Your task to perform on an android device: Open the phone app and click the voicemail tab. Image 0: 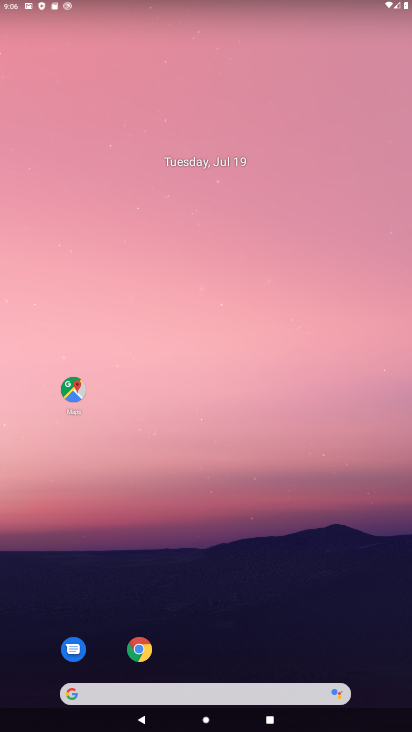
Step 0: drag from (381, 644) to (159, 80)
Your task to perform on an android device: Open the phone app and click the voicemail tab. Image 1: 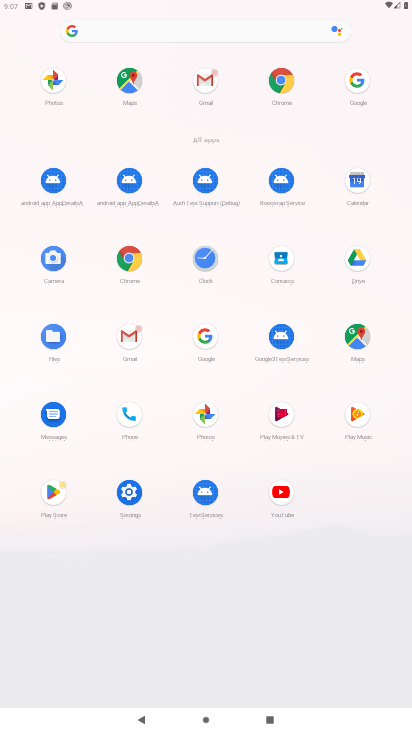
Step 1: click (125, 427)
Your task to perform on an android device: Open the phone app and click the voicemail tab. Image 2: 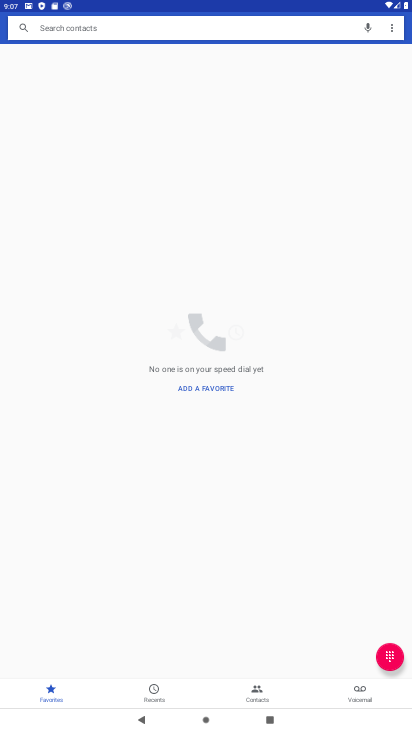
Step 2: click (362, 692)
Your task to perform on an android device: Open the phone app and click the voicemail tab. Image 3: 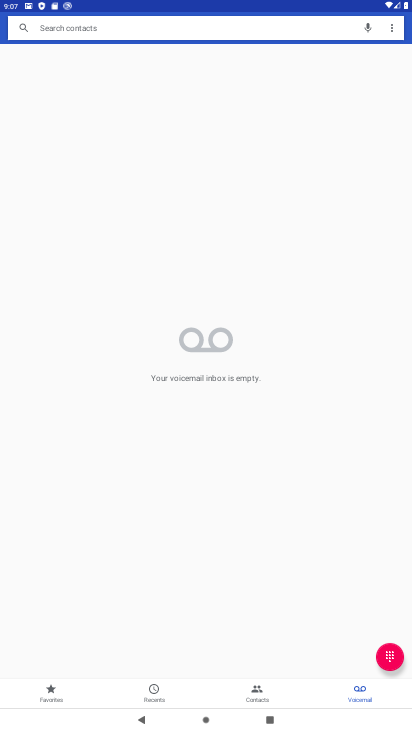
Step 3: task complete